Your task to perform on an android device: delete browsing data in the chrome app Image 0: 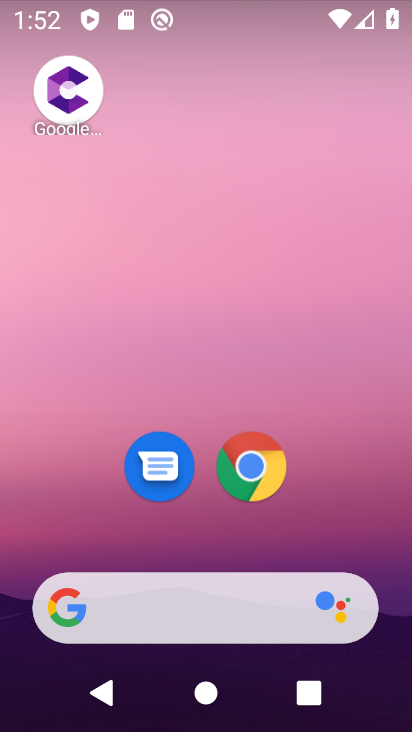
Step 0: click (262, 460)
Your task to perform on an android device: delete browsing data in the chrome app Image 1: 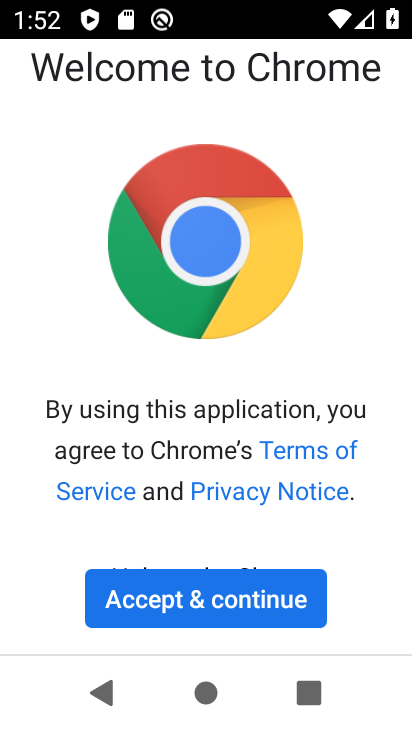
Step 1: click (259, 602)
Your task to perform on an android device: delete browsing data in the chrome app Image 2: 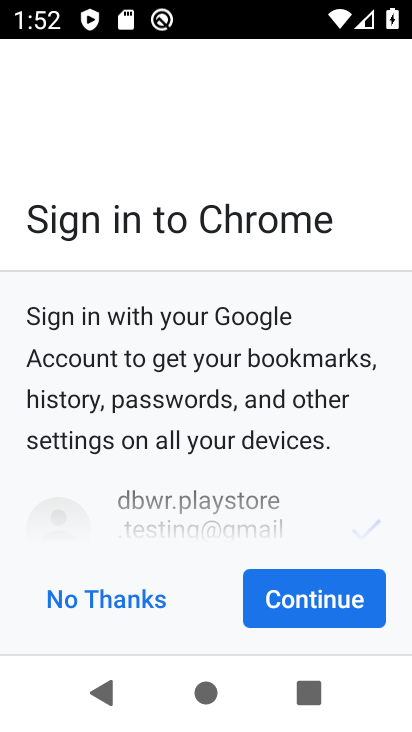
Step 2: click (259, 602)
Your task to perform on an android device: delete browsing data in the chrome app Image 3: 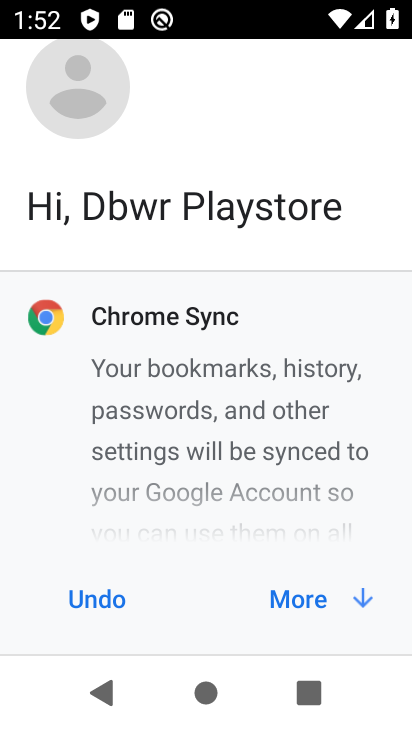
Step 3: click (313, 594)
Your task to perform on an android device: delete browsing data in the chrome app Image 4: 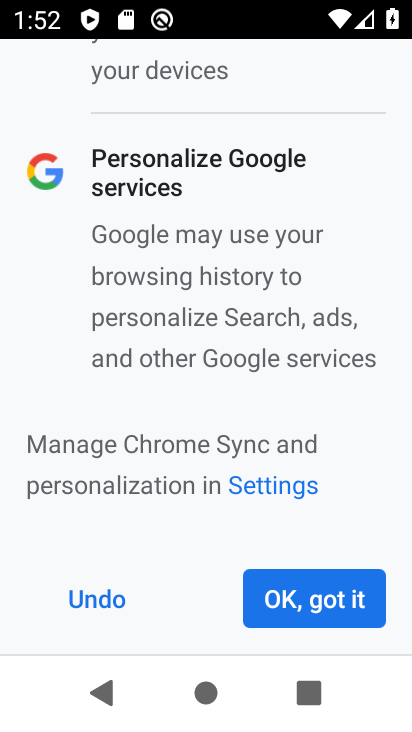
Step 4: click (313, 594)
Your task to perform on an android device: delete browsing data in the chrome app Image 5: 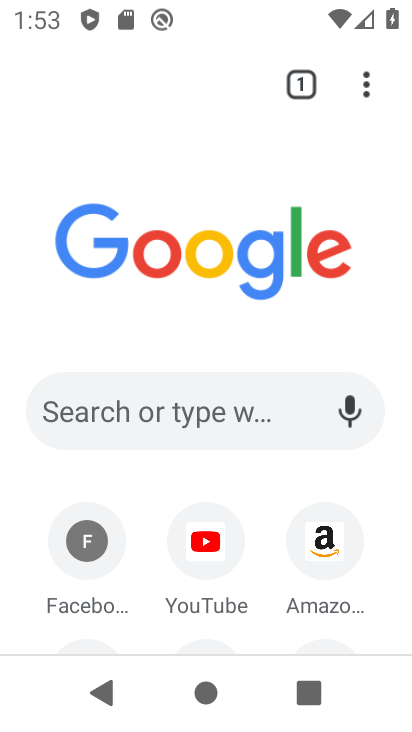
Step 5: drag from (369, 81) to (112, 520)
Your task to perform on an android device: delete browsing data in the chrome app Image 6: 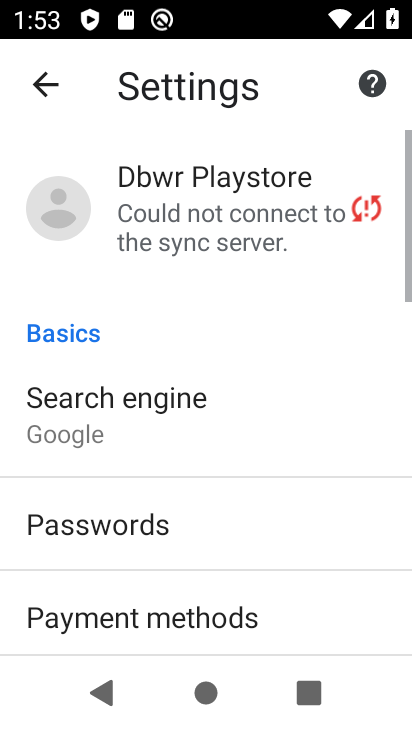
Step 6: drag from (271, 567) to (283, 127)
Your task to perform on an android device: delete browsing data in the chrome app Image 7: 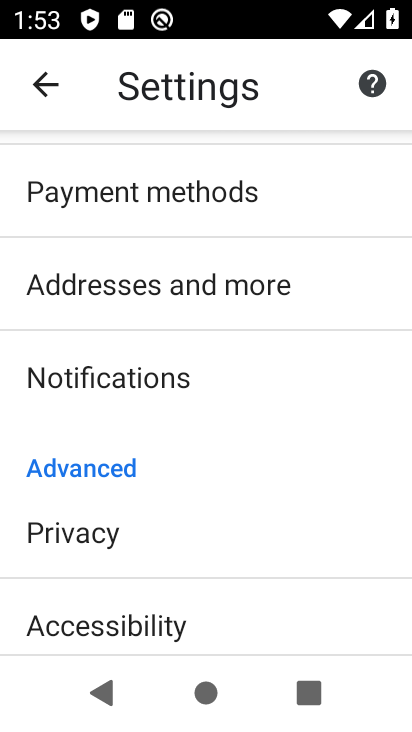
Step 7: click (75, 537)
Your task to perform on an android device: delete browsing data in the chrome app Image 8: 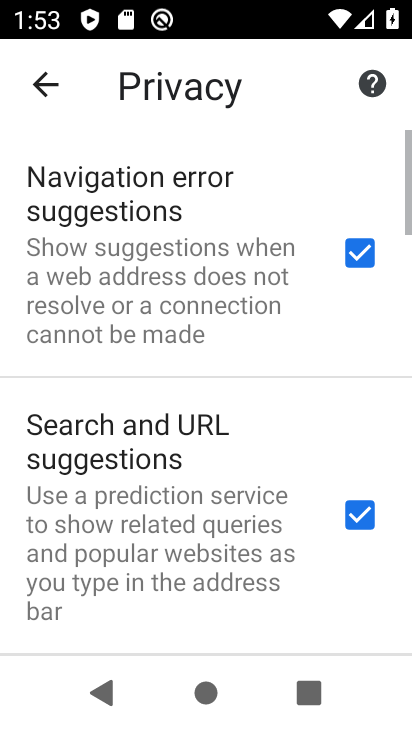
Step 8: drag from (209, 594) to (249, 141)
Your task to perform on an android device: delete browsing data in the chrome app Image 9: 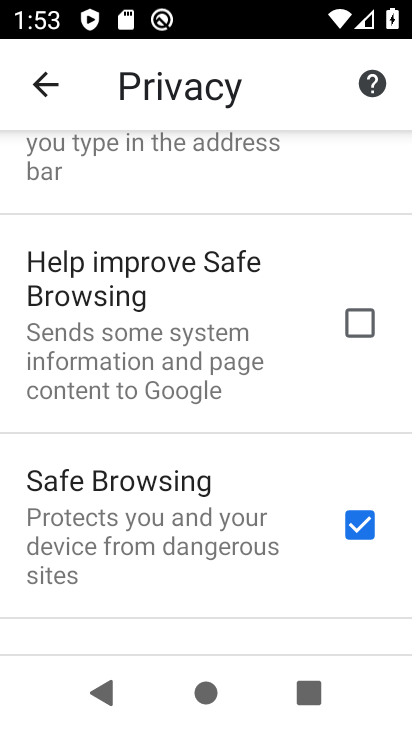
Step 9: drag from (237, 604) to (263, 183)
Your task to perform on an android device: delete browsing data in the chrome app Image 10: 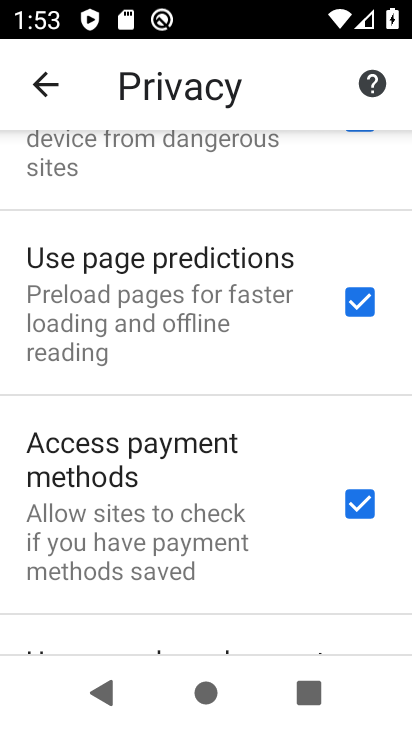
Step 10: drag from (229, 579) to (246, 258)
Your task to perform on an android device: delete browsing data in the chrome app Image 11: 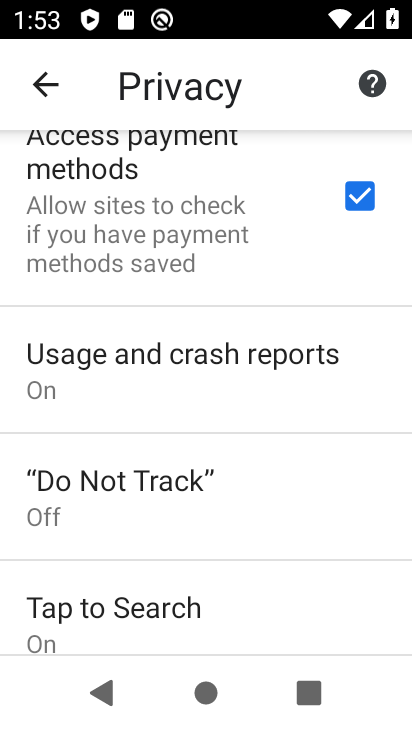
Step 11: drag from (245, 625) to (255, 150)
Your task to perform on an android device: delete browsing data in the chrome app Image 12: 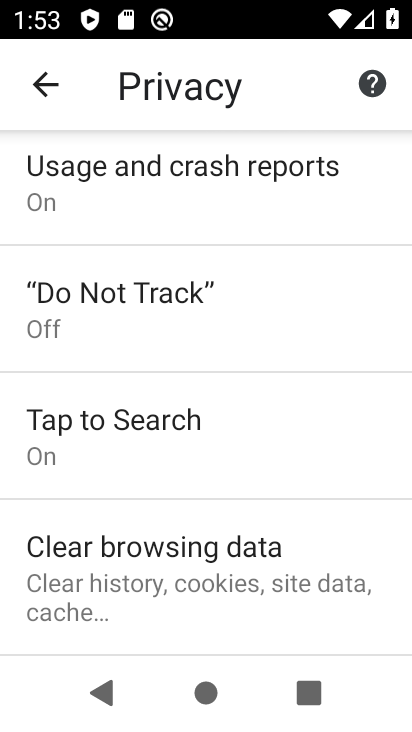
Step 12: click (122, 552)
Your task to perform on an android device: delete browsing data in the chrome app Image 13: 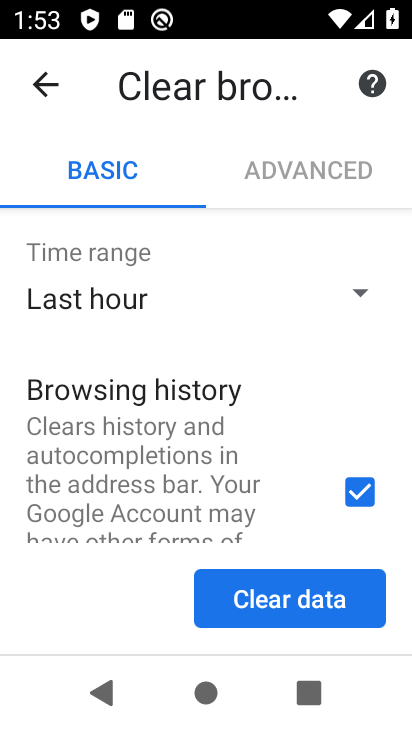
Step 13: click (262, 603)
Your task to perform on an android device: delete browsing data in the chrome app Image 14: 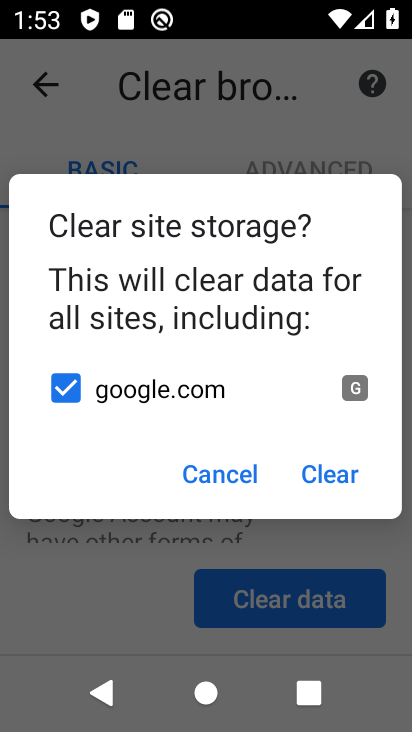
Step 14: click (339, 471)
Your task to perform on an android device: delete browsing data in the chrome app Image 15: 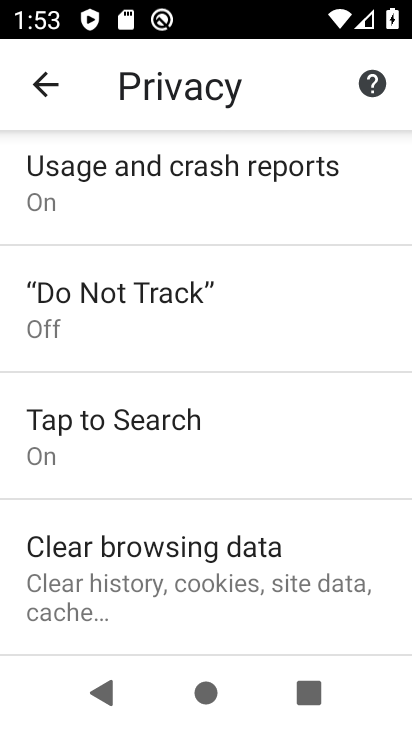
Step 15: task complete